Your task to perform on an android device: turn on sleep mode Image 0: 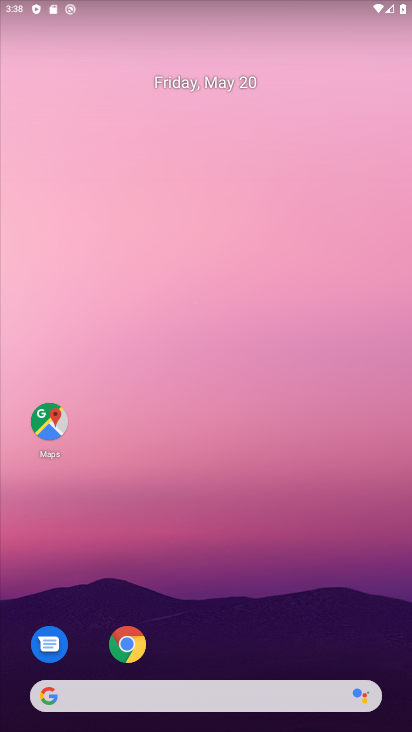
Step 0: drag from (253, 630) to (248, 153)
Your task to perform on an android device: turn on sleep mode Image 1: 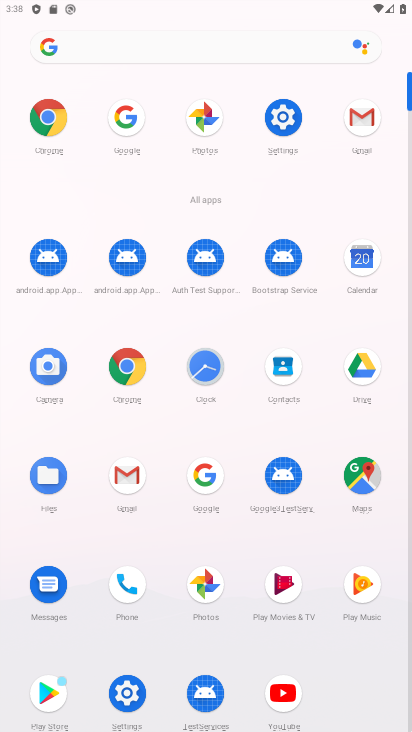
Step 1: click (289, 128)
Your task to perform on an android device: turn on sleep mode Image 2: 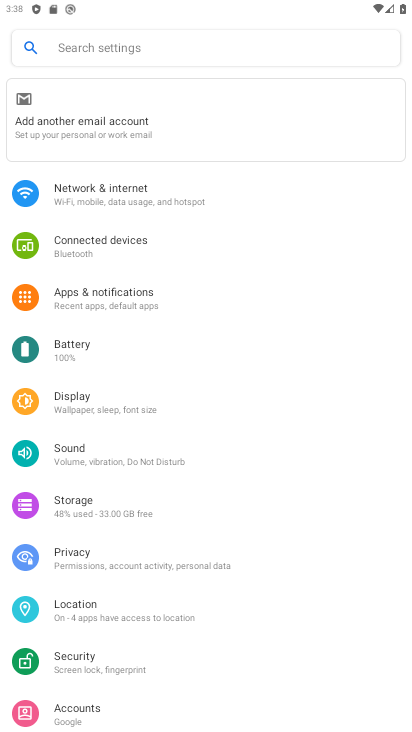
Step 2: click (69, 413)
Your task to perform on an android device: turn on sleep mode Image 3: 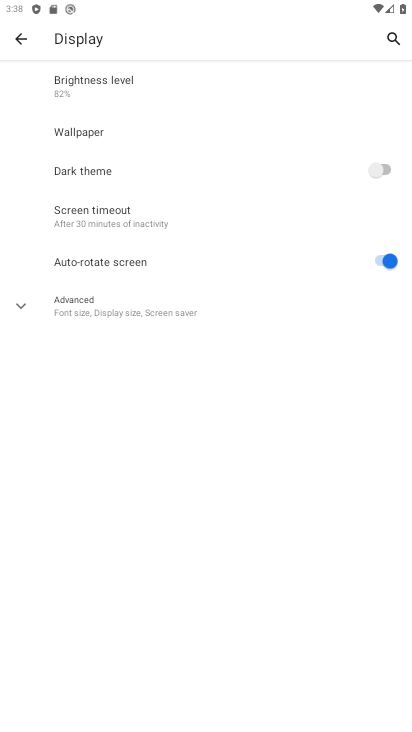
Step 3: click (22, 301)
Your task to perform on an android device: turn on sleep mode Image 4: 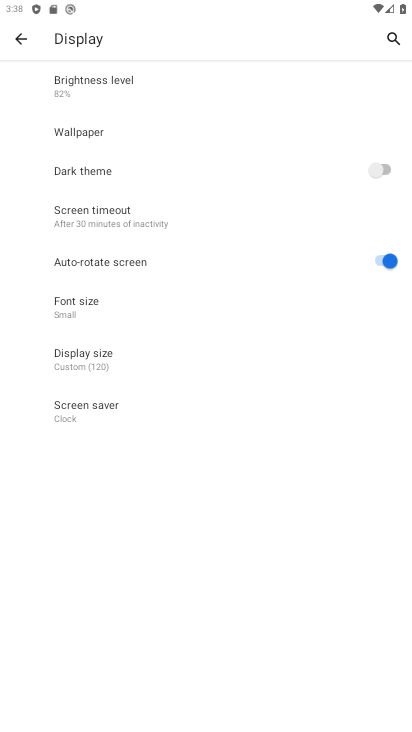
Step 4: task complete